Your task to perform on an android device: Open maps Image 0: 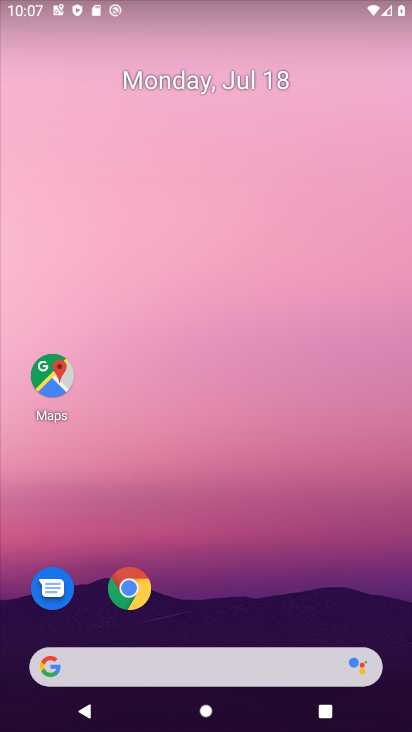
Step 0: drag from (242, 721) to (247, 188)
Your task to perform on an android device: Open maps Image 1: 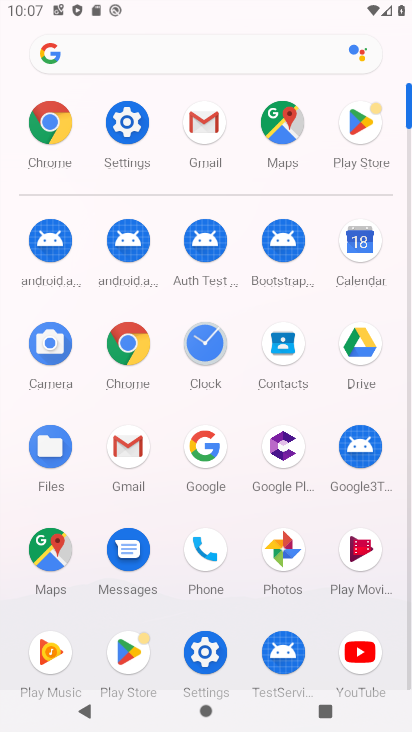
Step 1: click (283, 119)
Your task to perform on an android device: Open maps Image 2: 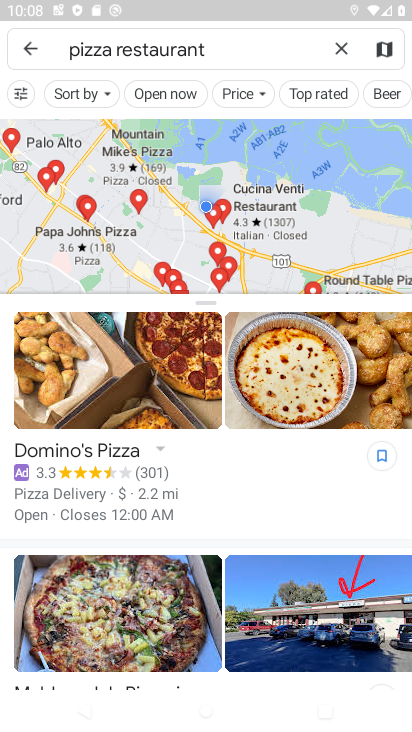
Step 2: task complete